Your task to perform on an android device: open sync settings in chrome Image 0: 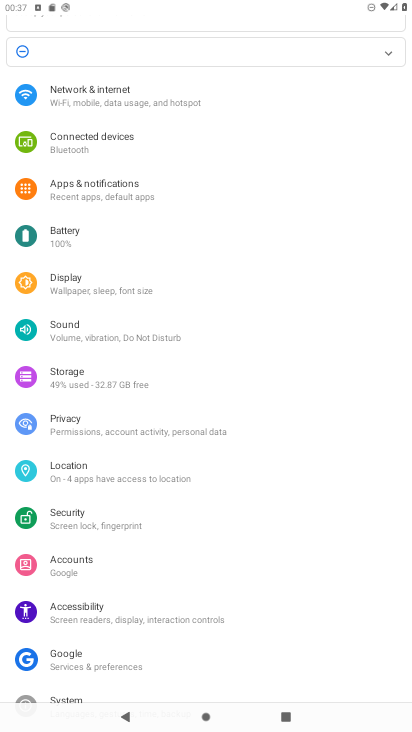
Step 0: press home button
Your task to perform on an android device: open sync settings in chrome Image 1: 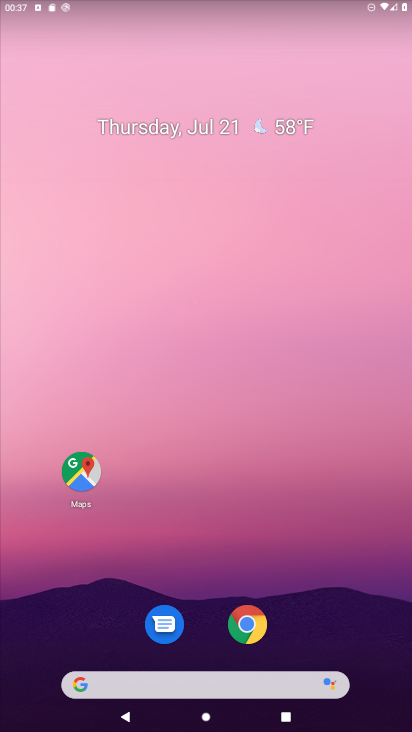
Step 1: click (264, 611)
Your task to perform on an android device: open sync settings in chrome Image 2: 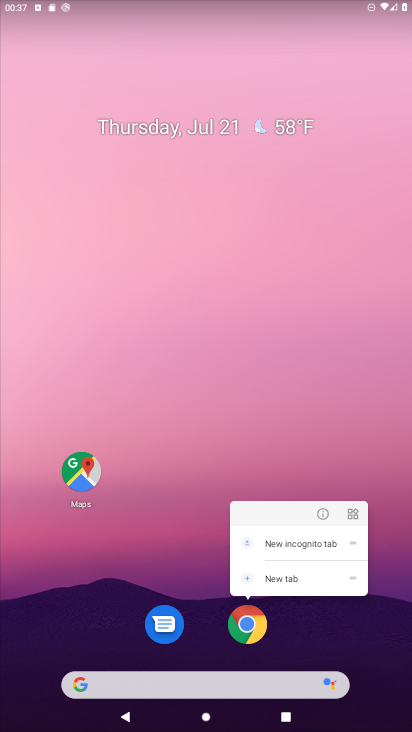
Step 2: click (245, 626)
Your task to perform on an android device: open sync settings in chrome Image 3: 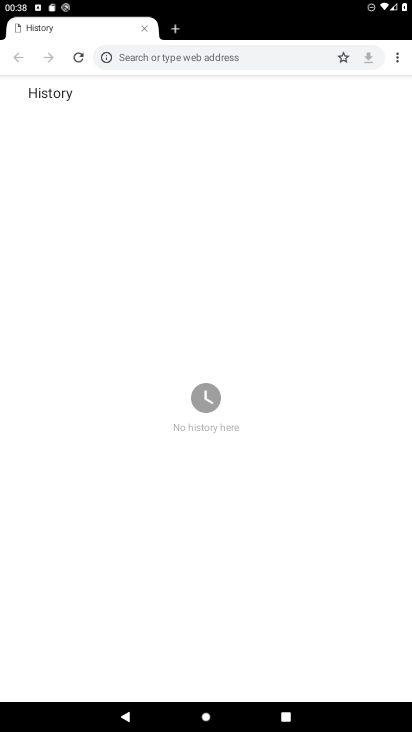
Step 3: click (390, 52)
Your task to perform on an android device: open sync settings in chrome Image 4: 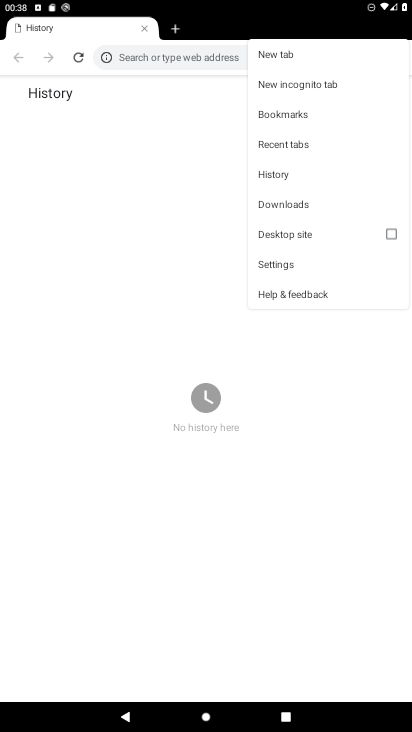
Step 4: click (279, 268)
Your task to perform on an android device: open sync settings in chrome Image 5: 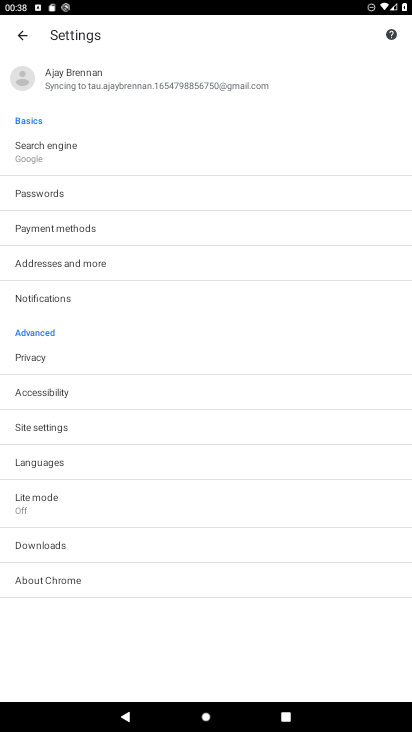
Step 5: click (115, 78)
Your task to perform on an android device: open sync settings in chrome Image 6: 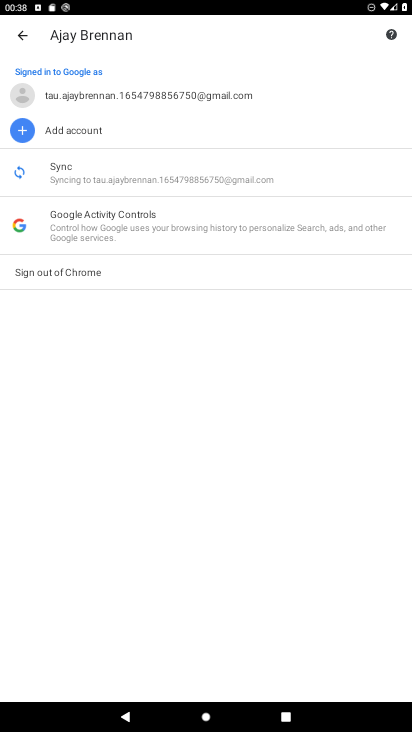
Step 6: click (106, 175)
Your task to perform on an android device: open sync settings in chrome Image 7: 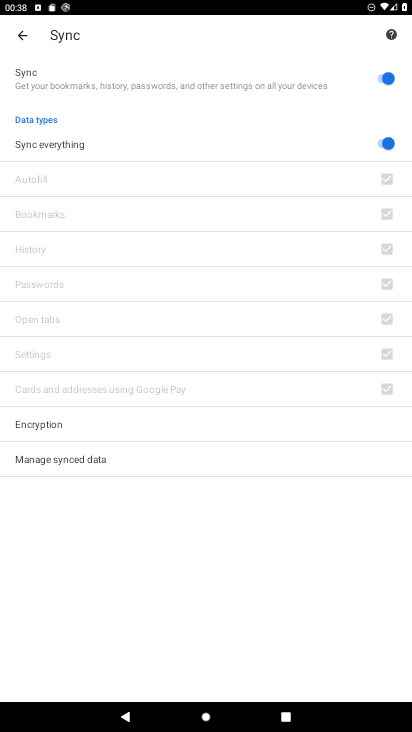
Step 7: task complete